Your task to perform on an android device: Open calendar and show me the first week of next month Image 0: 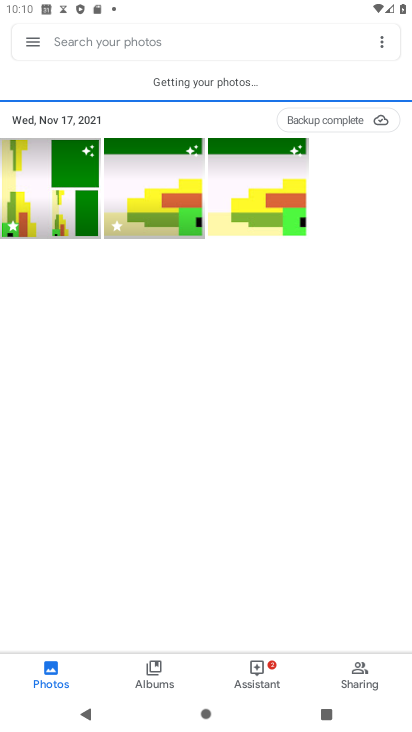
Step 0: press home button
Your task to perform on an android device: Open calendar and show me the first week of next month Image 1: 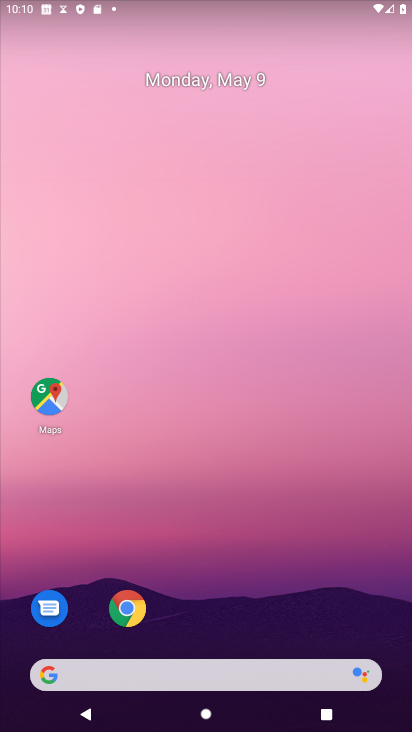
Step 1: drag from (210, 613) to (292, 39)
Your task to perform on an android device: Open calendar and show me the first week of next month Image 2: 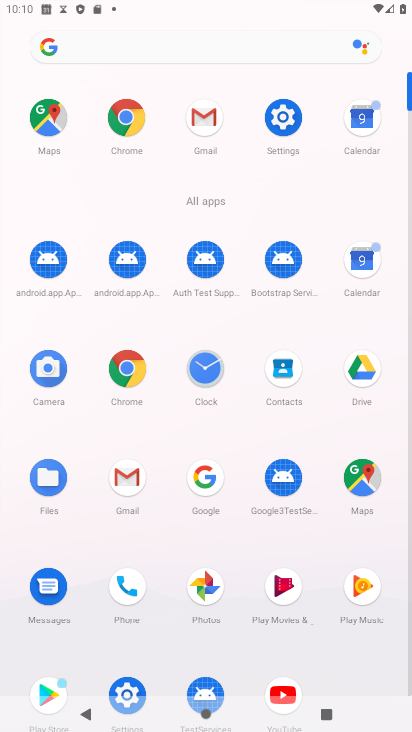
Step 2: click (378, 122)
Your task to perform on an android device: Open calendar and show me the first week of next month Image 3: 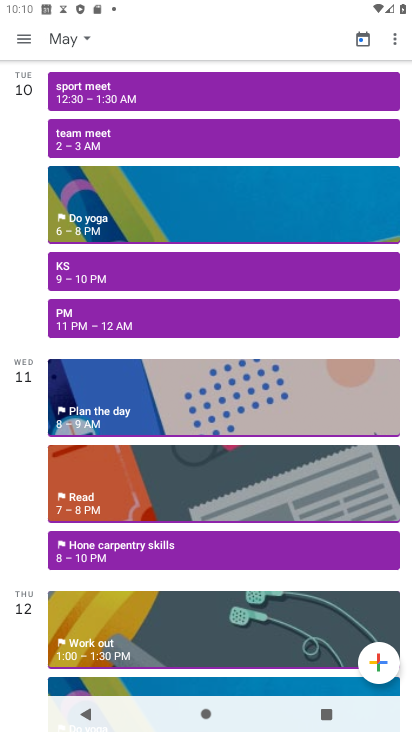
Step 3: click (77, 44)
Your task to perform on an android device: Open calendar and show me the first week of next month Image 4: 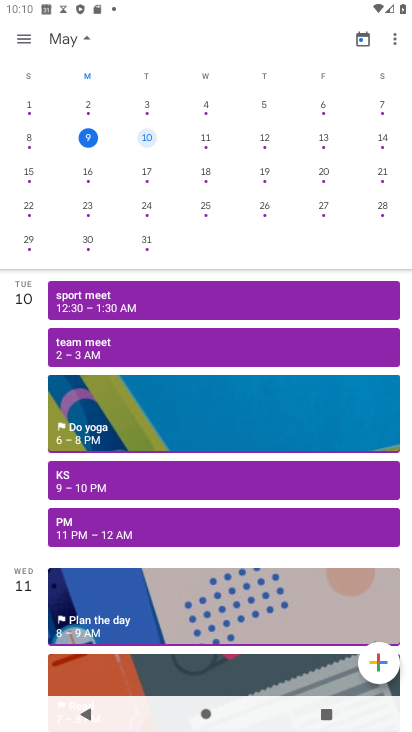
Step 4: drag from (405, 132) to (0, 134)
Your task to perform on an android device: Open calendar and show me the first week of next month Image 5: 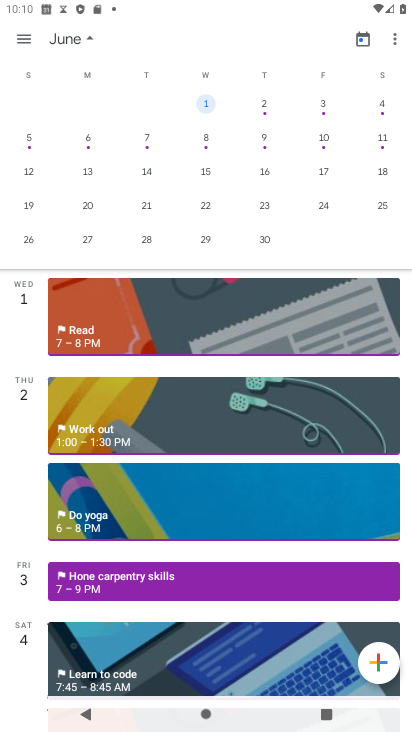
Step 5: click (24, 38)
Your task to perform on an android device: Open calendar and show me the first week of next month Image 6: 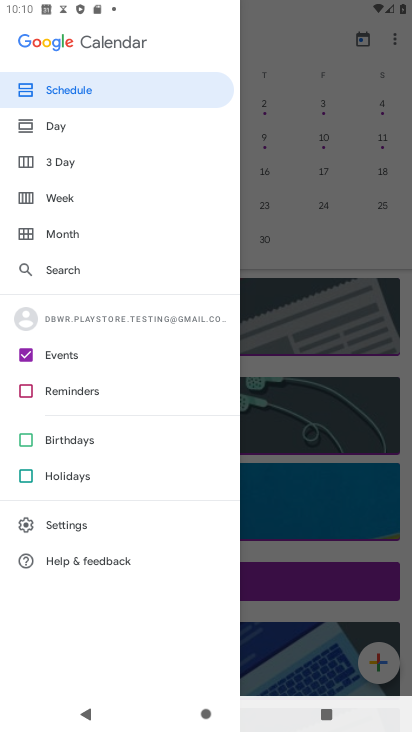
Step 6: click (61, 195)
Your task to perform on an android device: Open calendar and show me the first week of next month Image 7: 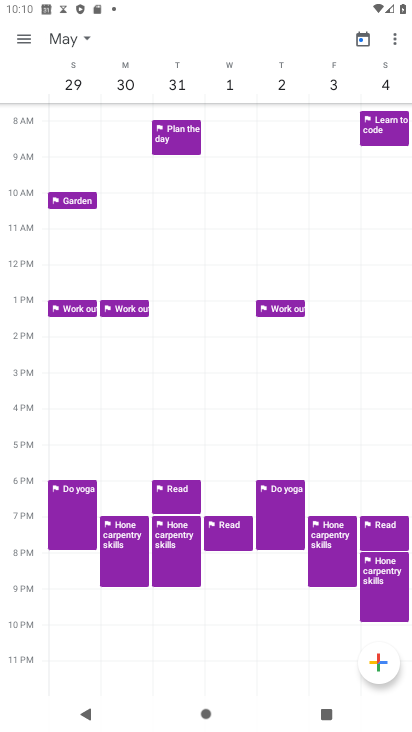
Step 7: task complete